Your task to perform on an android device: change the upload size in google photos Image 0: 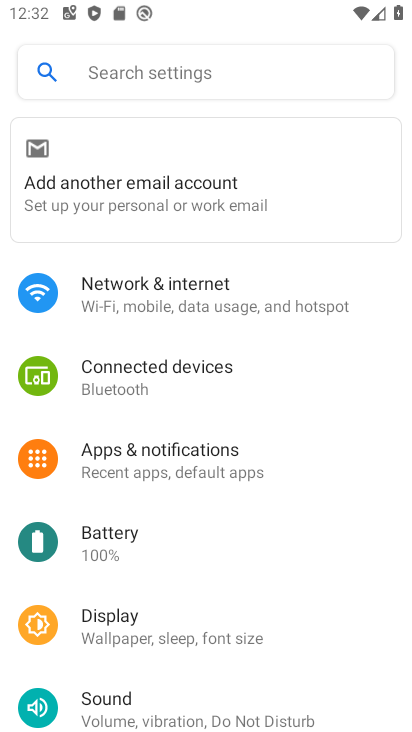
Step 0: press home button
Your task to perform on an android device: change the upload size in google photos Image 1: 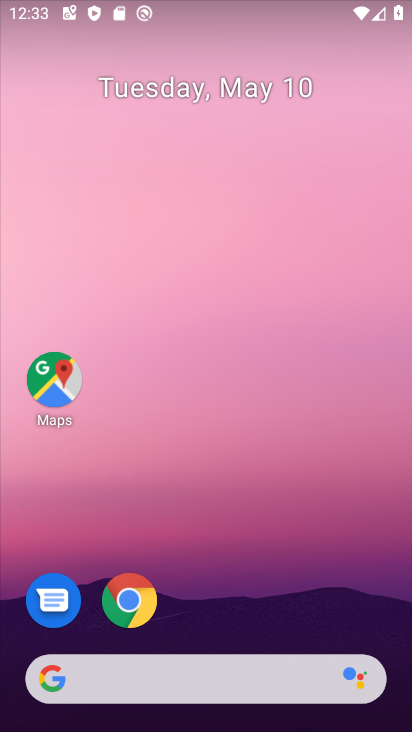
Step 1: drag from (220, 680) to (166, 15)
Your task to perform on an android device: change the upload size in google photos Image 2: 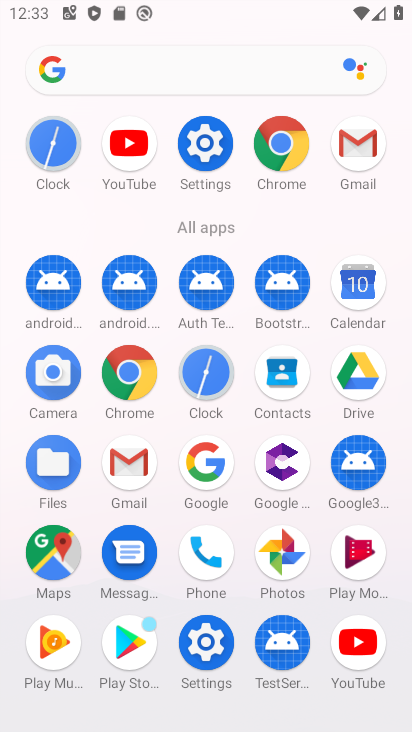
Step 2: click (281, 547)
Your task to perform on an android device: change the upload size in google photos Image 3: 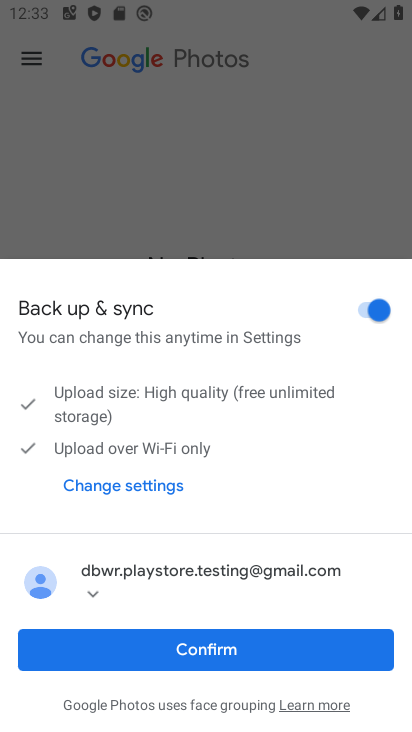
Step 3: click (241, 639)
Your task to perform on an android device: change the upload size in google photos Image 4: 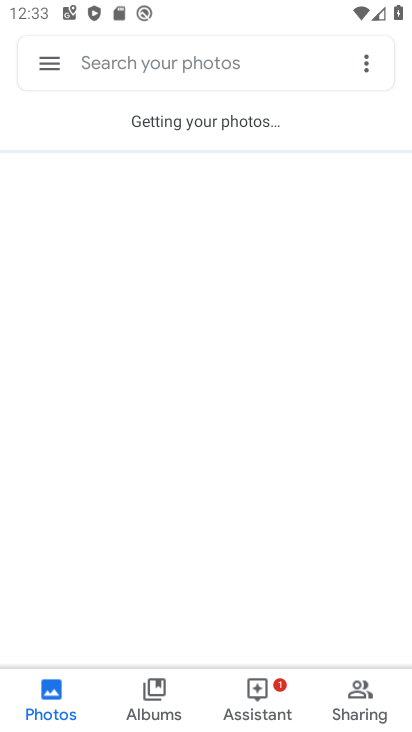
Step 4: click (46, 68)
Your task to perform on an android device: change the upload size in google photos Image 5: 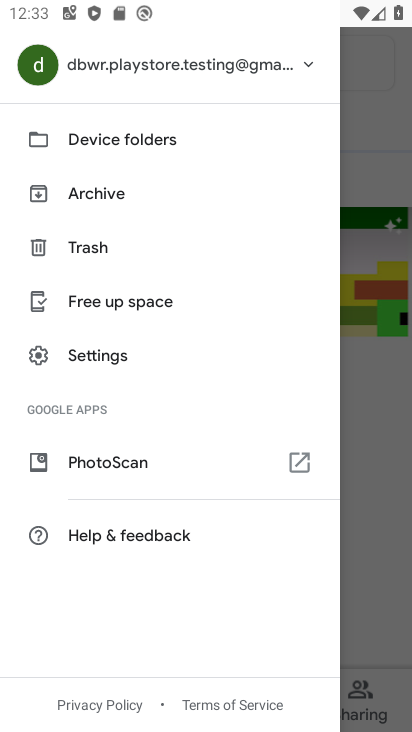
Step 5: click (112, 354)
Your task to perform on an android device: change the upload size in google photos Image 6: 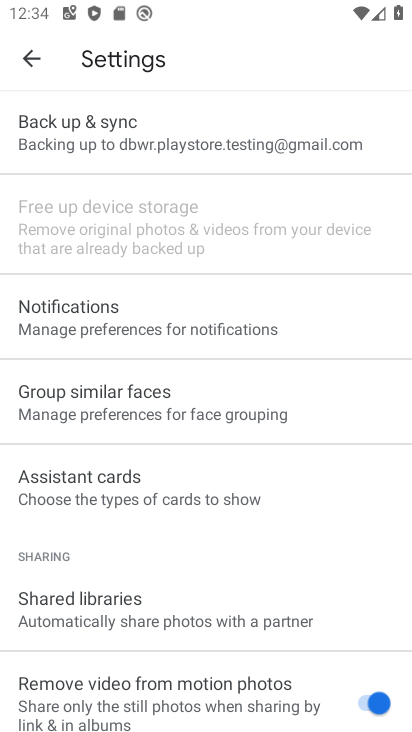
Step 6: click (153, 128)
Your task to perform on an android device: change the upload size in google photos Image 7: 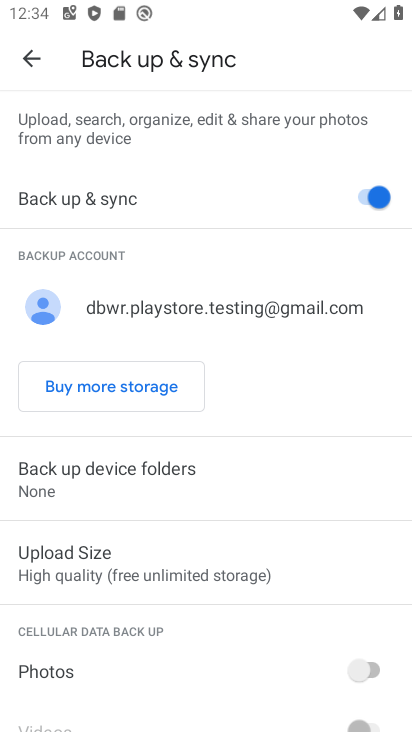
Step 7: click (202, 565)
Your task to perform on an android device: change the upload size in google photos Image 8: 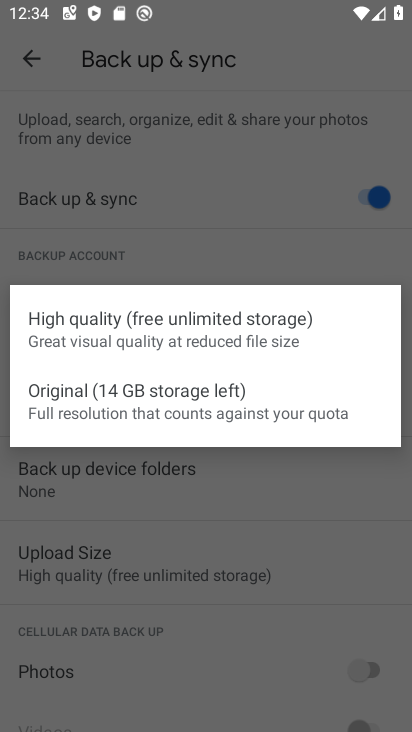
Step 8: click (130, 416)
Your task to perform on an android device: change the upload size in google photos Image 9: 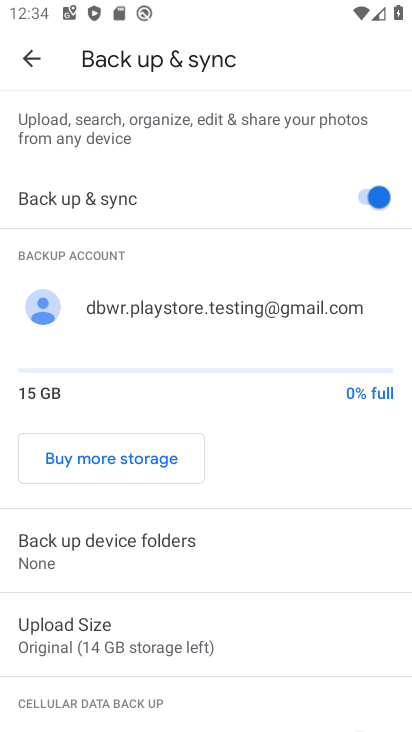
Step 9: task complete